Your task to perform on an android device: Do I have any events tomorrow? Image 0: 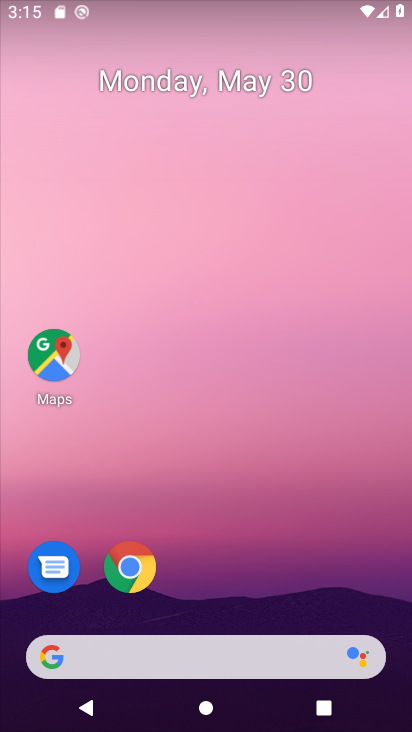
Step 0: drag from (260, 527) to (249, 5)
Your task to perform on an android device: Do I have any events tomorrow? Image 1: 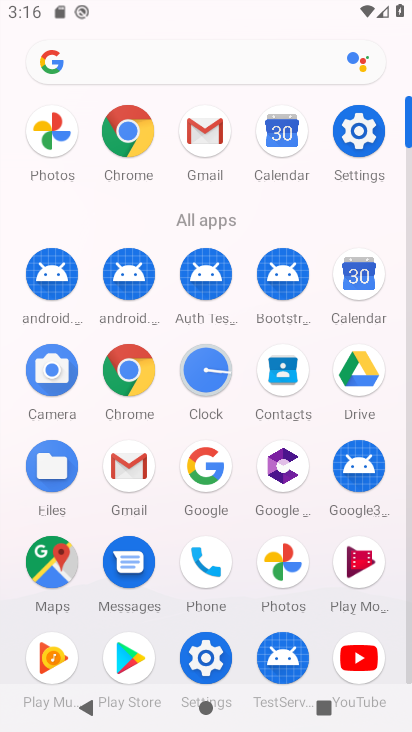
Step 1: click (352, 268)
Your task to perform on an android device: Do I have any events tomorrow? Image 2: 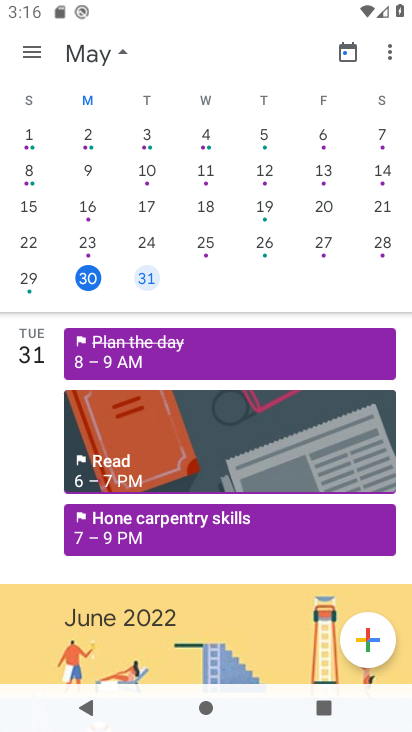
Step 2: click (149, 285)
Your task to perform on an android device: Do I have any events tomorrow? Image 3: 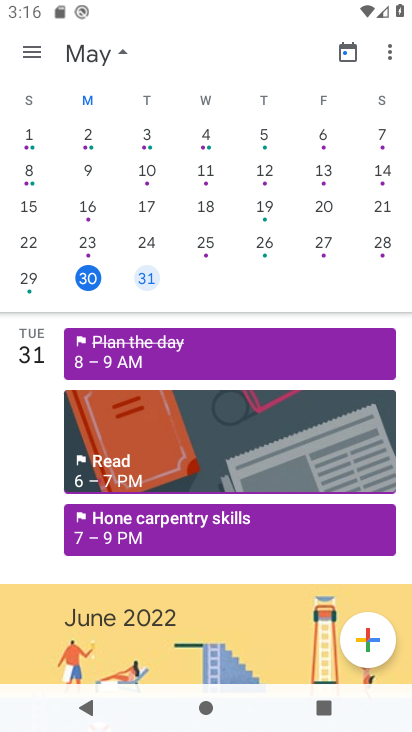
Step 3: task complete